Your task to perform on an android device: search for starred emails in the gmail app Image 0: 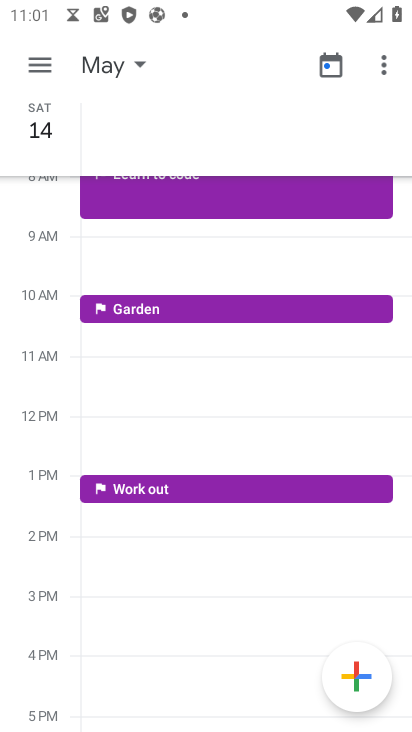
Step 0: press home button
Your task to perform on an android device: search for starred emails in the gmail app Image 1: 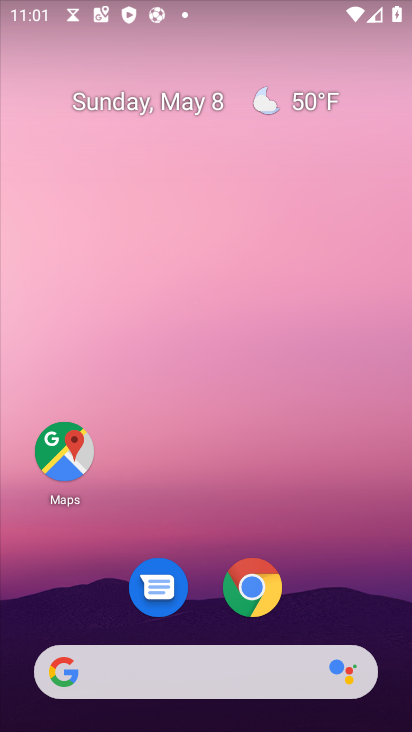
Step 1: drag from (338, 600) to (139, 102)
Your task to perform on an android device: search for starred emails in the gmail app Image 2: 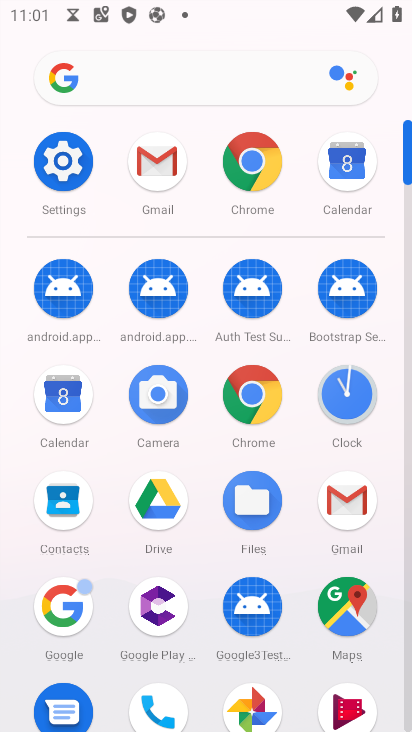
Step 2: click (157, 173)
Your task to perform on an android device: search for starred emails in the gmail app Image 3: 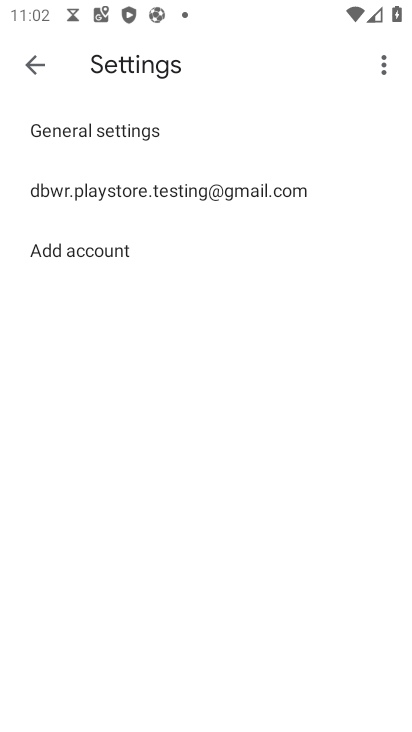
Step 3: click (33, 62)
Your task to perform on an android device: search for starred emails in the gmail app Image 4: 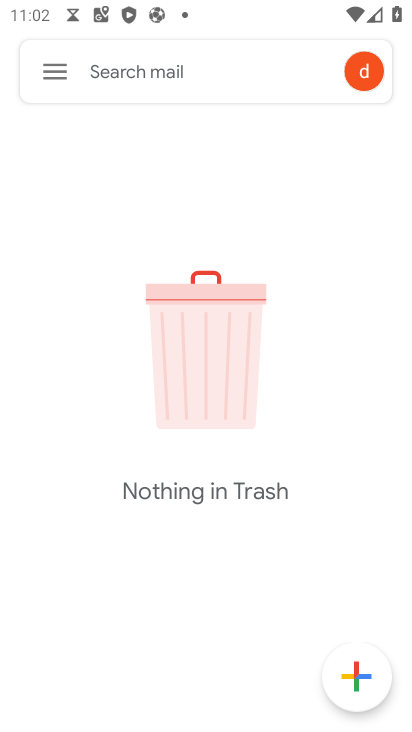
Step 4: click (59, 75)
Your task to perform on an android device: search for starred emails in the gmail app Image 5: 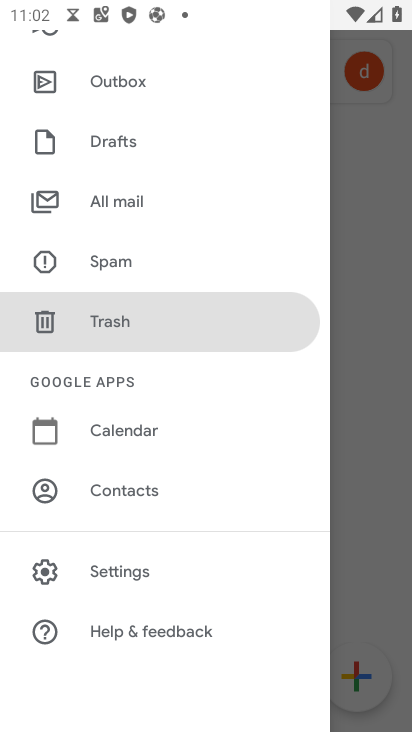
Step 5: drag from (173, 127) to (173, 340)
Your task to perform on an android device: search for starred emails in the gmail app Image 6: 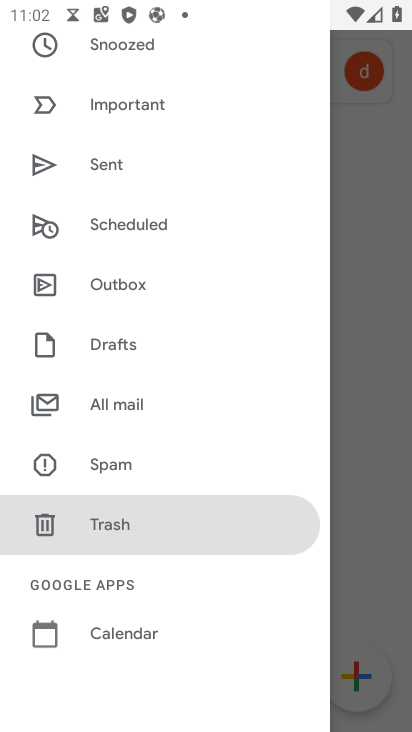
Step 6: drag from (129, 104) to (116, 241)
Your task to perform on an android device: search for starred emails in the gmail app Image 7: 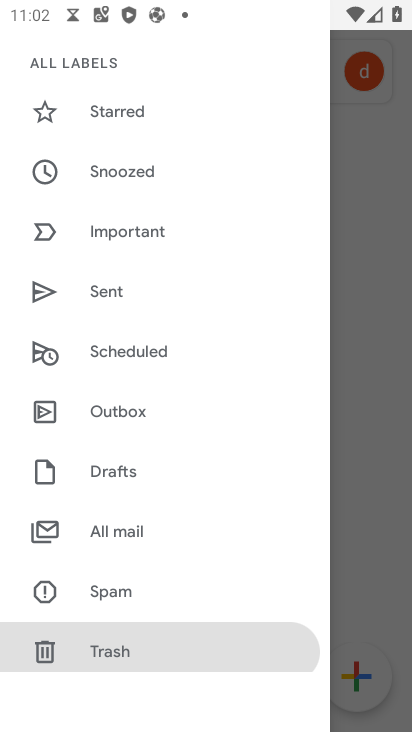
Step 7: click (115, 111)
Your task to perform on an android device: search for starred emails in the gmail app Image 8: 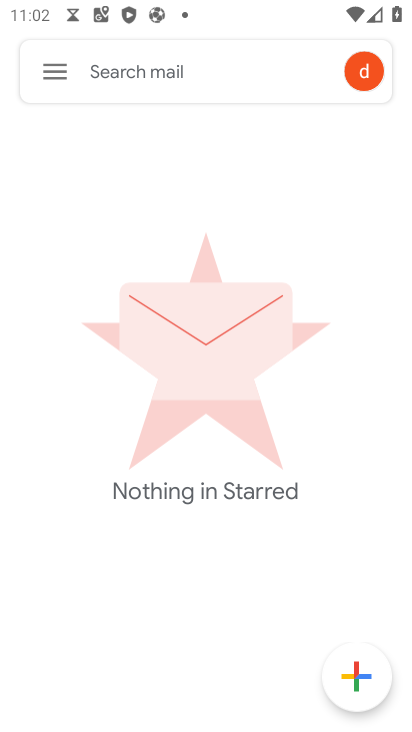
Step 8: task complete